Your task to perform on an android device: check storage Image 0: 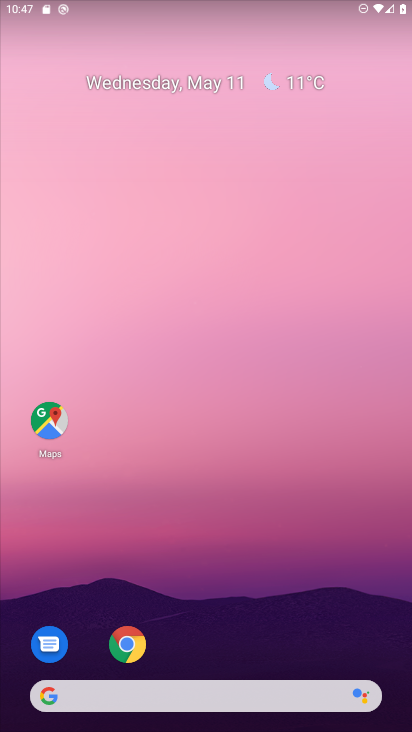
Step 0: press home button
Your task to perform on an android device: check storage Image 1: 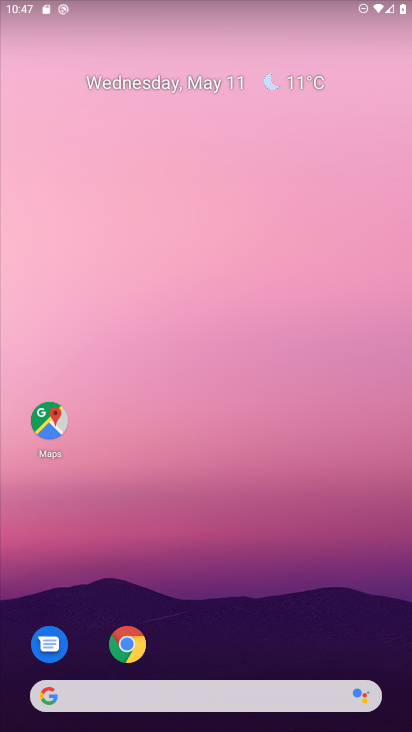
Step 1: drag from (197, 622) to (161, 7)
Your task to perform on an android device: check storage Image 2: 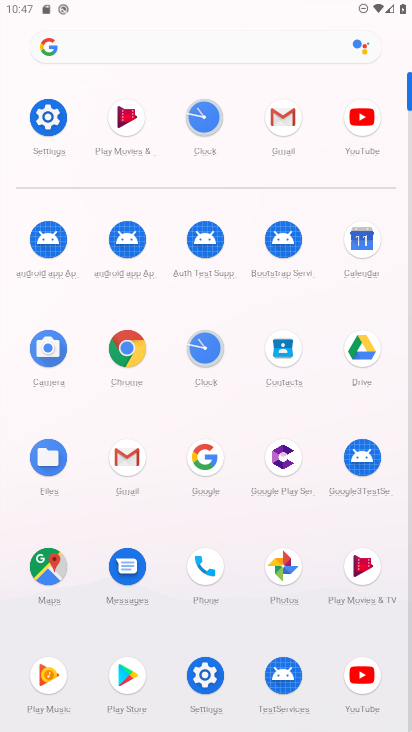
Step 2: click (55, 125)
Your task to perform on an android device: check storage Image 3: 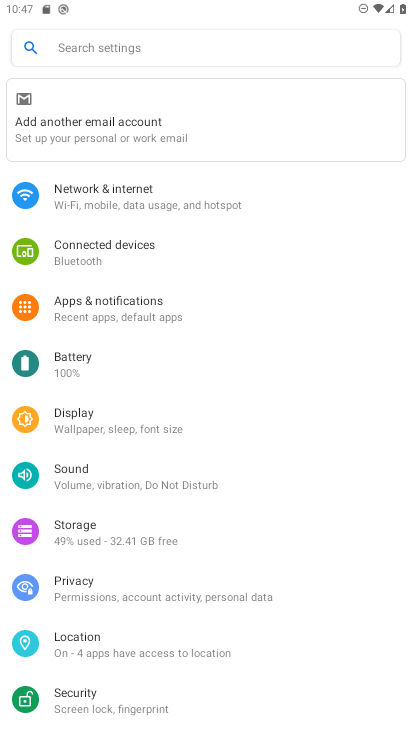
Step 3: click (75, 531)
Your task to perform on an android device: check storage Image 4: 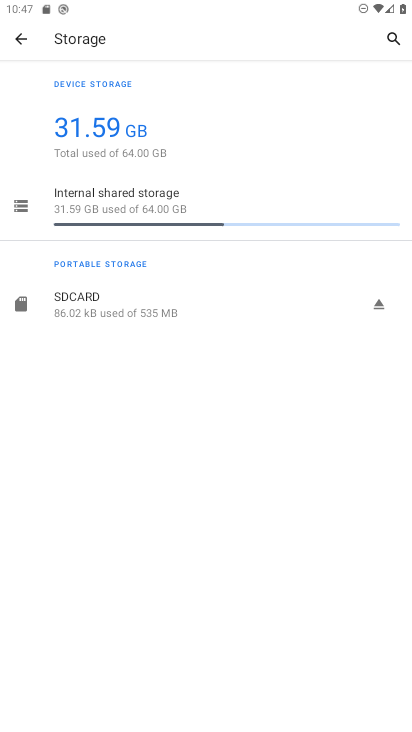
Step 4: click (124, 166)
Your task to perform on an android device: check storage Image 5: 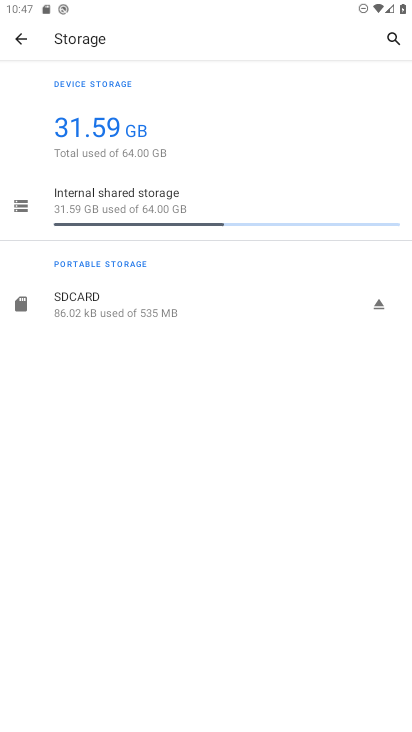
Step 5: click (84, 159)
Your task to perform on an android device: check storage Image 6: 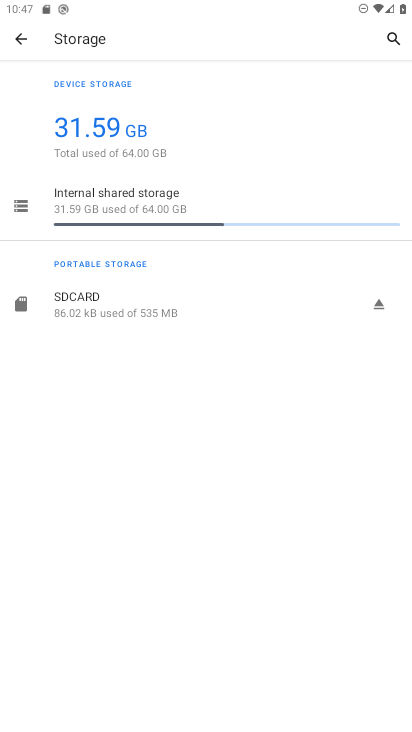
Step 6: click (93, 193)
Your task to perform on an android device: check storage Image 7: 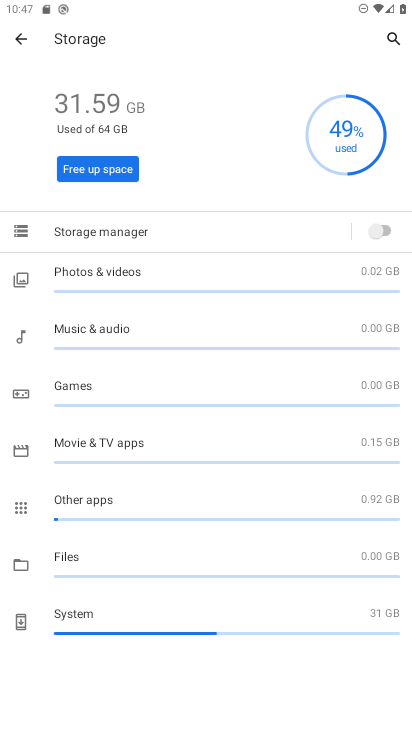
Step 7: task complete